Your task to perform on an android device: turn off improve location accuracy Image 0: 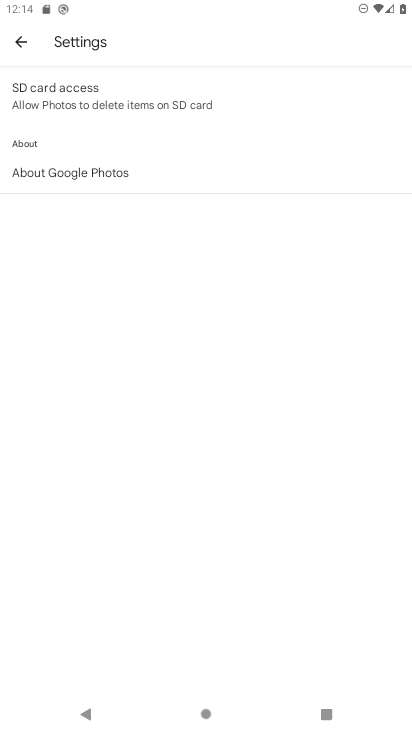
Step 0: press home button
Your task to perform on an android device: turn off improve location accuracy Image 1: 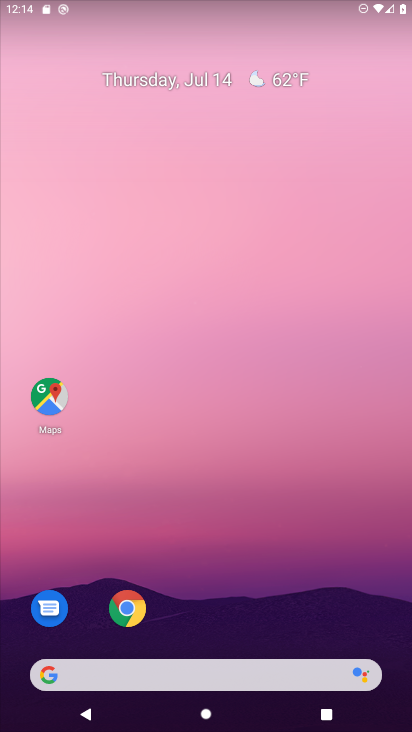
Step 1: drag from (243, 711) to (236, 121)
Your task to perform on an android device: turn off improve location accuracy Image 2: 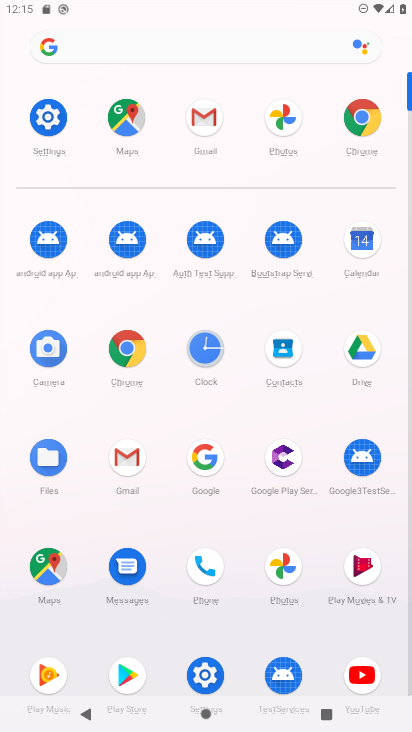
Step 2: click (52, 120)
Your task to perform on an android device: turn off improve location accuracy Image 3: 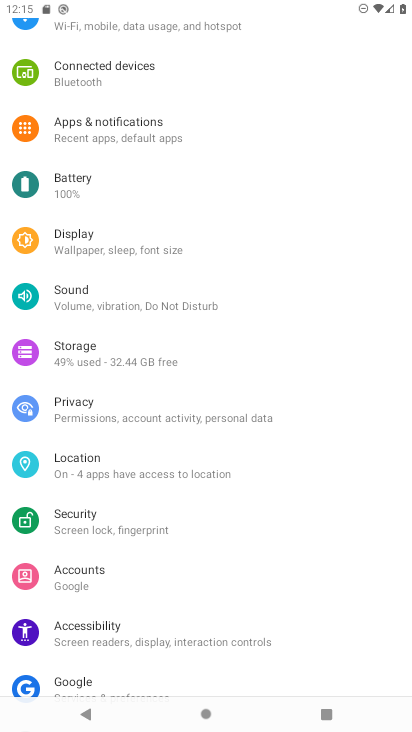
Step 3: click (88, 455)
Your task to perform on an android device: turn off improve location accuracy Image 4: 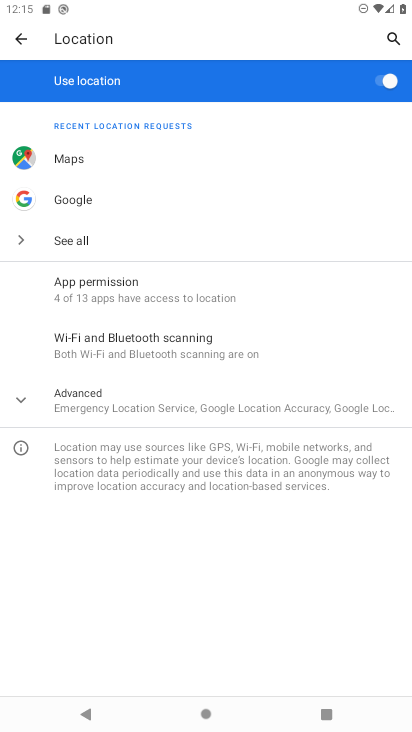
Step 4: click (97, 406)
Your task to perform on an android device: turn off improve location accuracy Image 5: 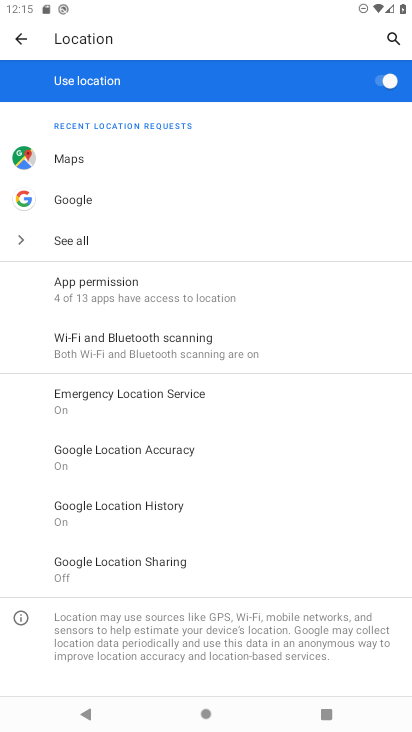
Step 5: click (139, 447)
Your task to perform on an android device: turn off improve location accuracy Image 6: 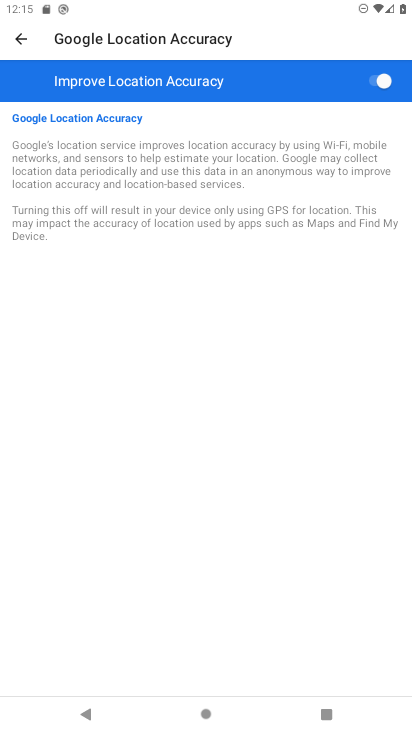
Step 6: click (378, 79)
Your task to perform on an android device: turn off improve location accuracy Image 7: 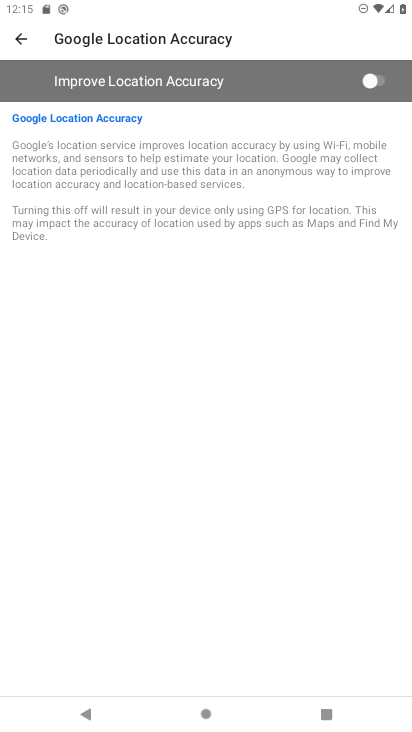
Step 7: task complete